Your task to perform on an android device: Open a new incognito tab in Chrome Image 0: 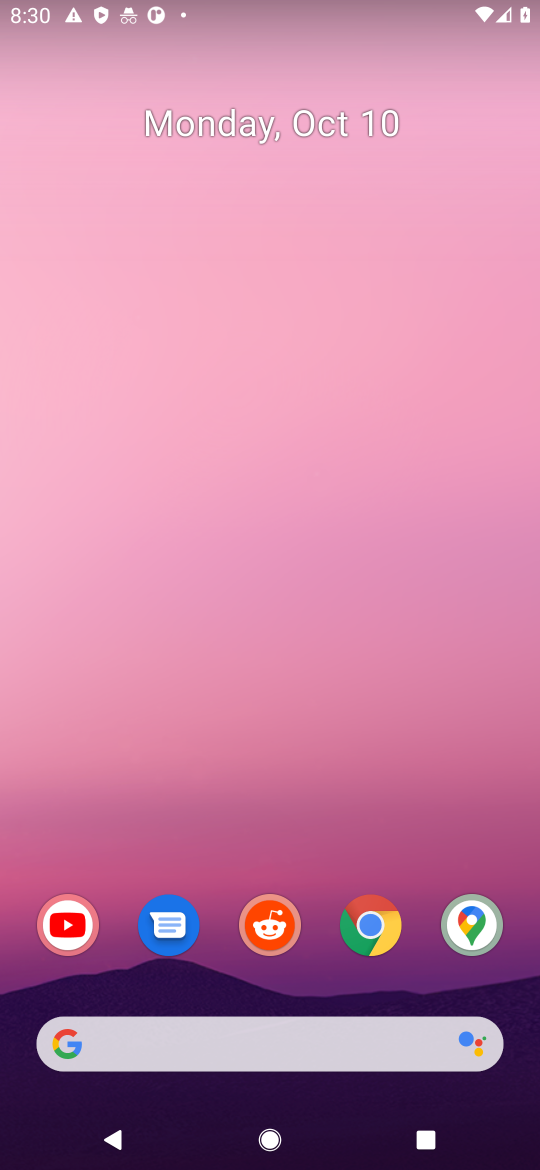
Step 0: drag from (308, 963) to (259, 225)
Your task to perform on an android device: Open a new incognito tab in Chrome Image 1: 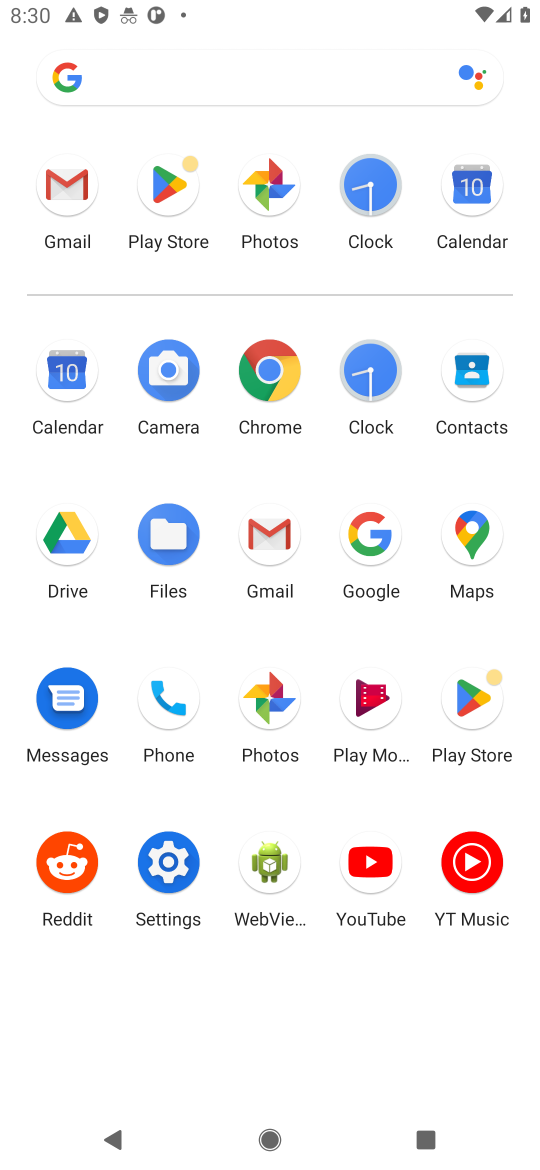
Step 1: click (263, 370)
Your task to perform on an android device: Open a new incognito tab in Chrome Image 2: 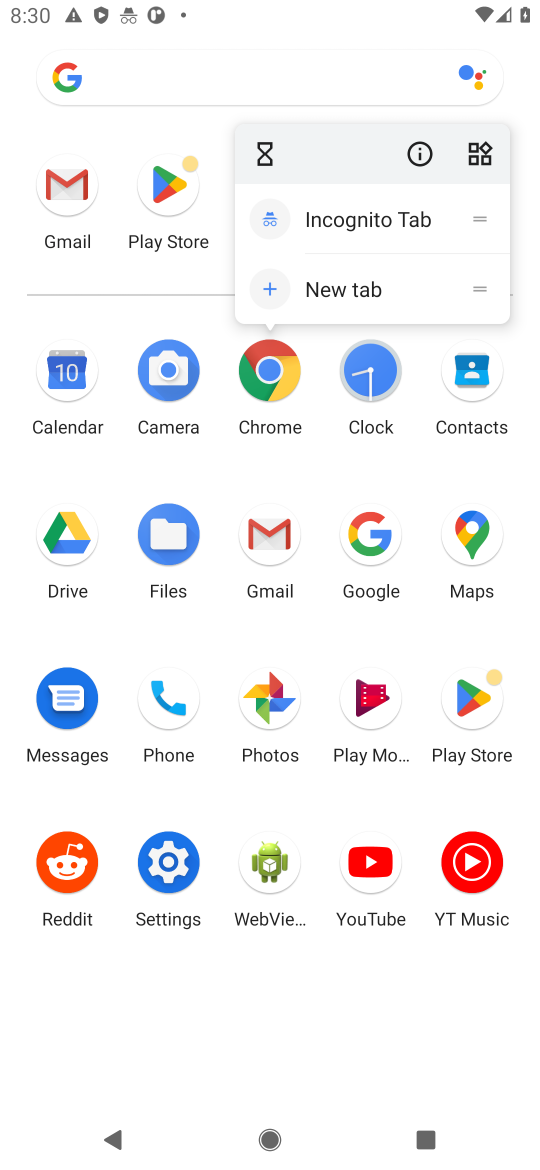
Step 2: click (263, 370)
Your task to perform on an android device: Open a new incognito tab in Chrome Image 3: 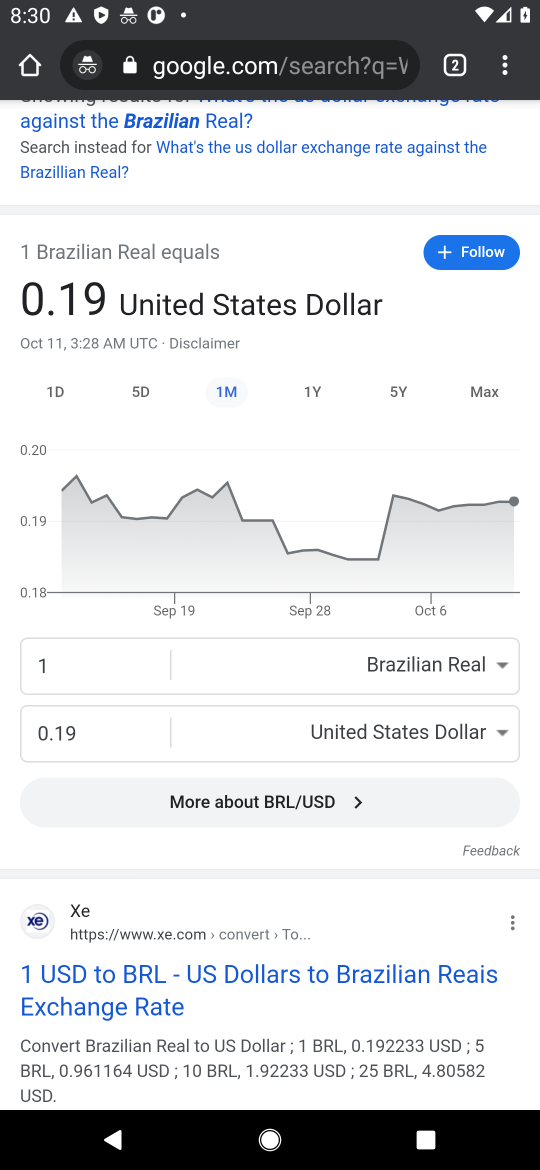
Step 3: task complete